Your task to perform on an android device: star an email in the gmail app Image 0: 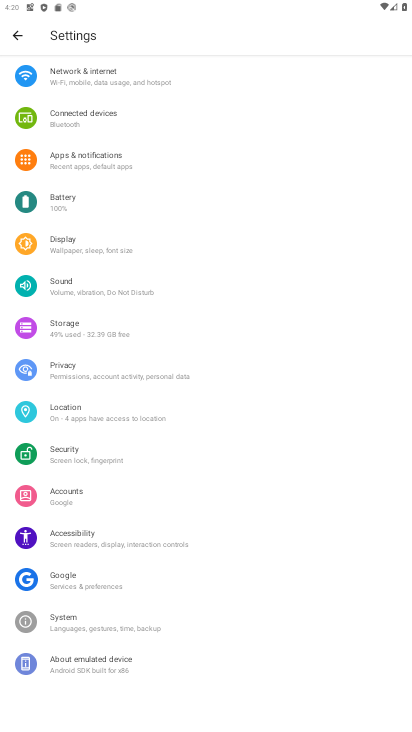
Step 0: press home button
Your task to perform on an android device: star an email in the gmail app Image 1: 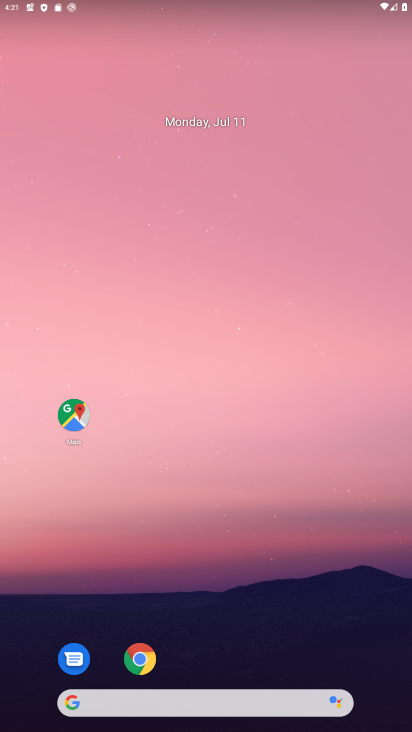
Step 1: drag from (191, 640) to (227, 195)
Your task to perform on an android device: star an email in the gmail app Image 2: 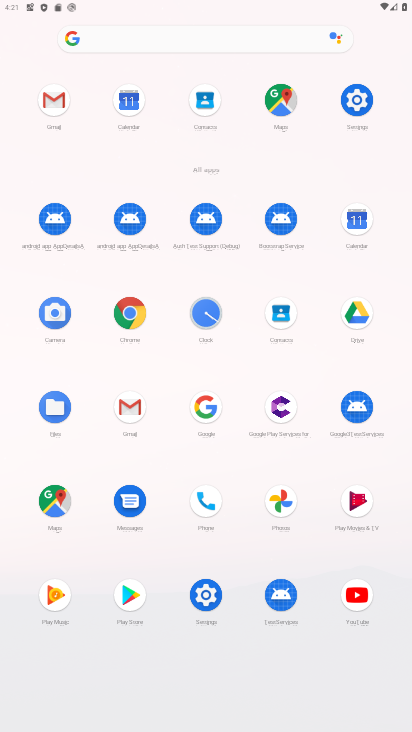
Step 2: click (48, 94)
Your task to perform on an android device: star an email in the gmail app Image 3: 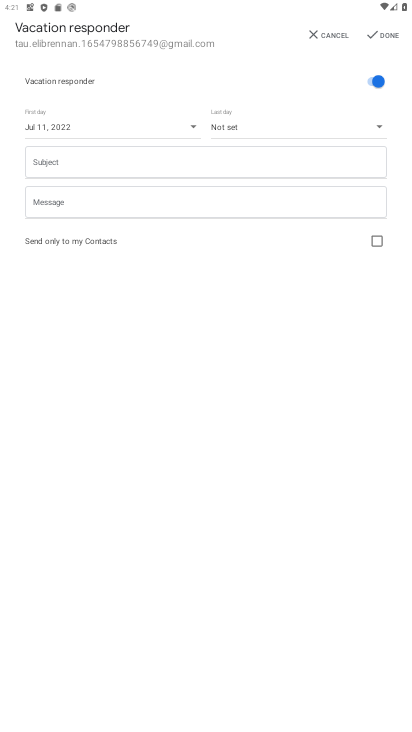
Step 3: click (335, 30)
Your task to perform on an android device: star an email in the gmail app Image 4: 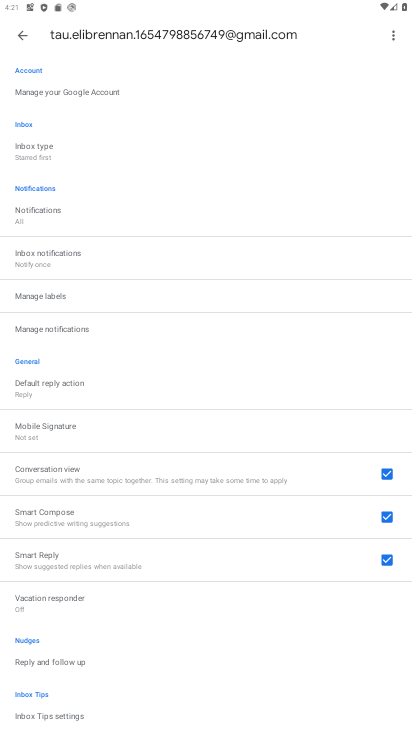
Step 4: click (19, 31)
Your task to perform on an android device: star an email in the gmail app Image 5: 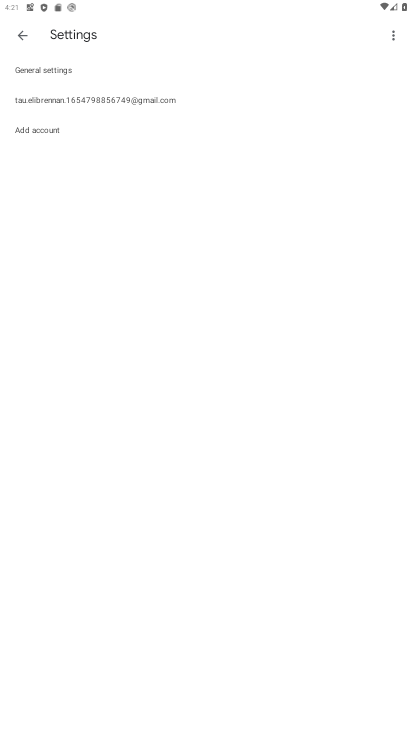
Step 5: click (23, 40)
Your task to perform on an android device: star an email in the gmail app Image 6: 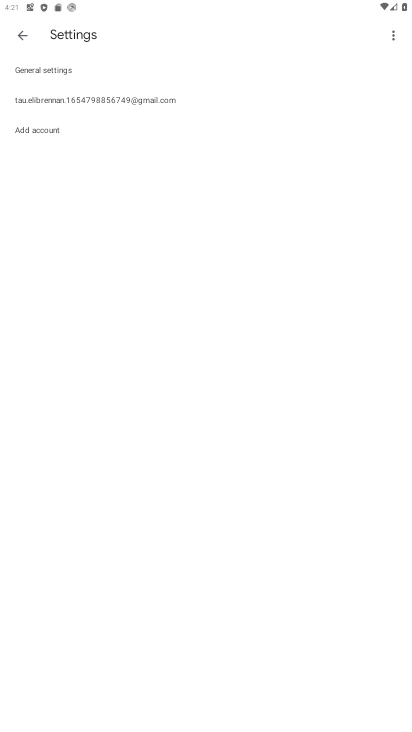
Step 6: click (23, 40)
Your task to perform on an android device: star an email in the gmail app Image 7: 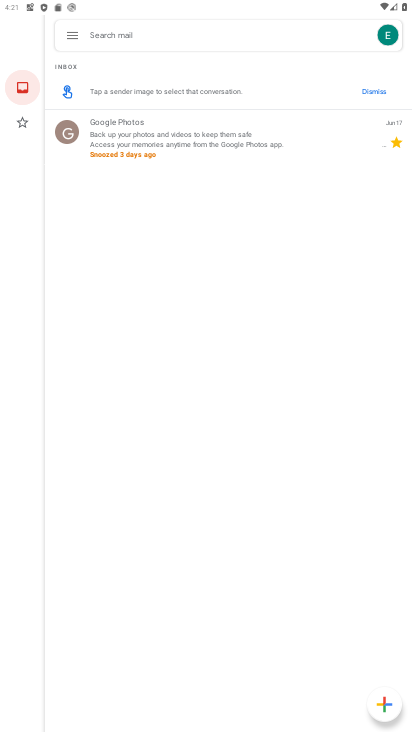
Step 7: task complete